Your task to perform on an android device: Open my contact list Image 0: 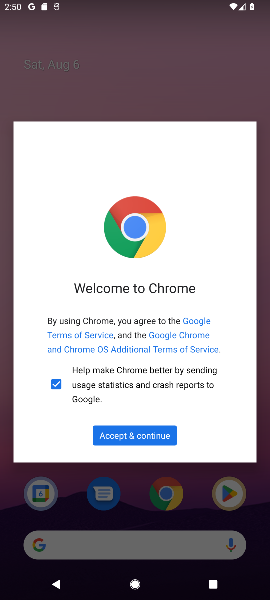
Step 0: drag from (113, 403) to (52, 14)
Your task to perform on an android device: Open my contact list Image 1: 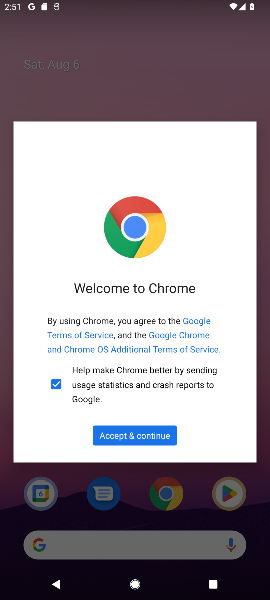
Step 1: press back button
Your task to perform on an android device: Open my contact list Image 2: 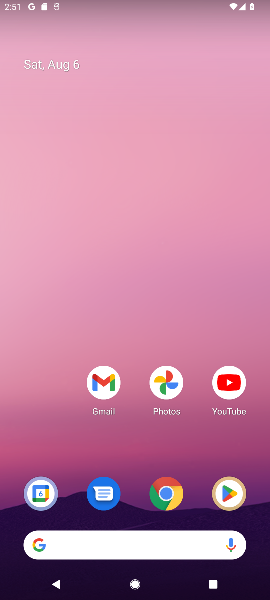
Step 2: press back button
Your task to perform on an android device: Open my contact list Image 3: 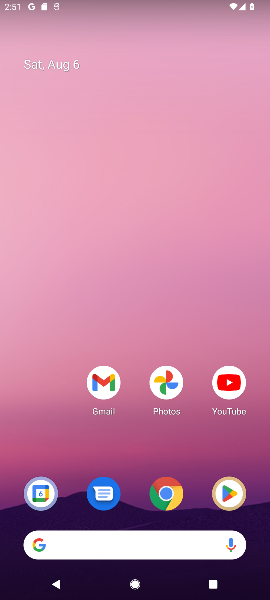
Step 3: press home button
Your task to perform on an android device: Open my contact list Image 4: 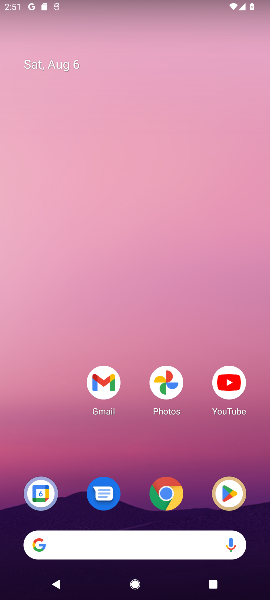
Step 4: drag from (180, 557) to (164, 169)
Your task to perform on an android device: Open my contact list Image 5: 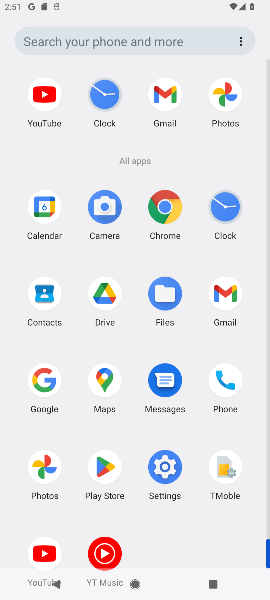
Step 5: click (142, 131)
Your task to perform on an android device: Open my contact list Image 6: 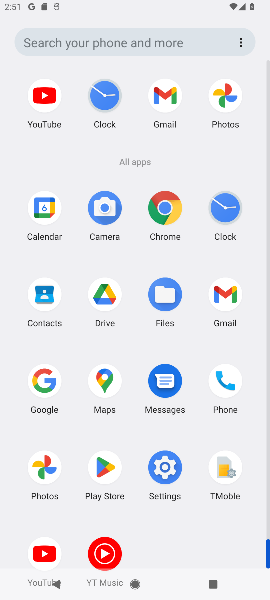
Step 6: drag from (171, 401) to (132, 182)
Your task to perform on an android device: Open my contact list Image 7: 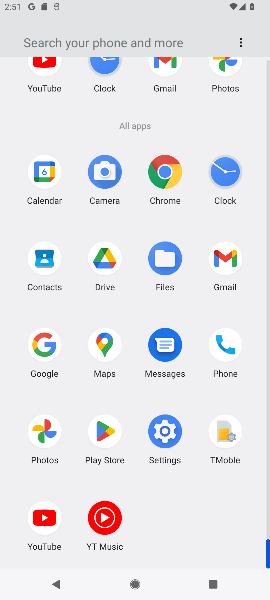
Step 7: click (49, 255)
Your task to perform on an android device: Open my contact list Image 8: 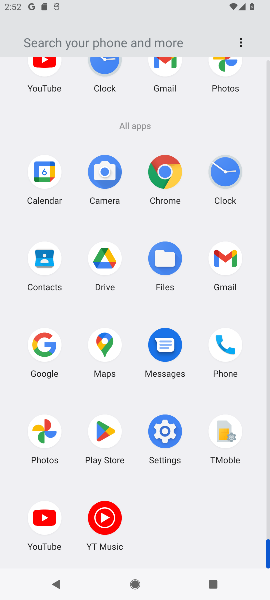
Step 8: click (44, 263)
Your task to perform on an android device: Open my contact list Image 9: 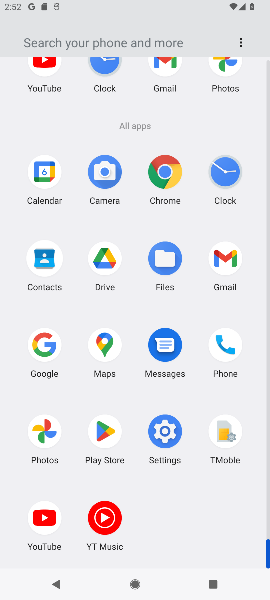
Step 9: click (44, 263)
Your task to perform on an android device: Open my contact list Image 10: 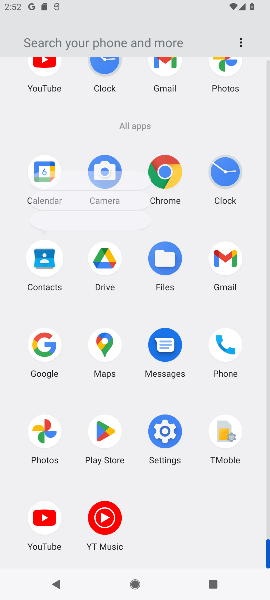
Step 10: click (44, 263)
Your task to perform on an android device: Open my contact list Image 11: 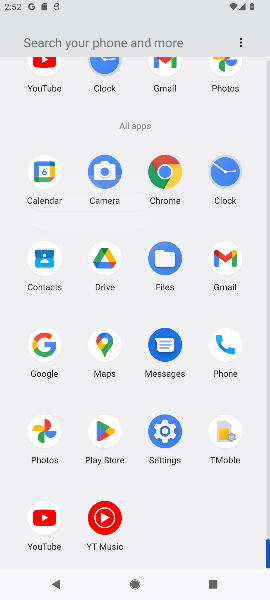
Step 11: click (42, 262)
Your task to perform on an android device: Open my contact list Image 12: 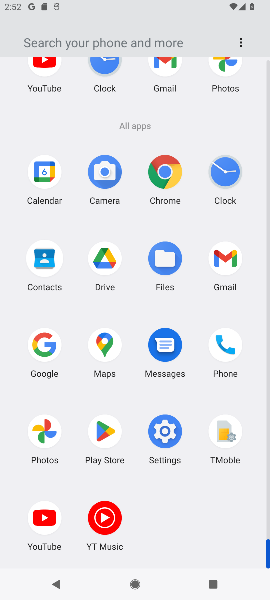
Step 12: click (42, 262)
Your task to perform on an android device: Open my contact list Image 13: 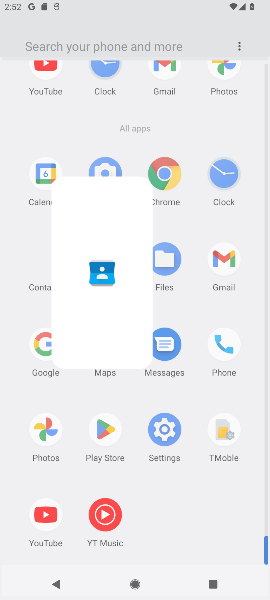
Step 13: click (43, 261)
Your task to perform on an android device: Open my contact list Image 14: 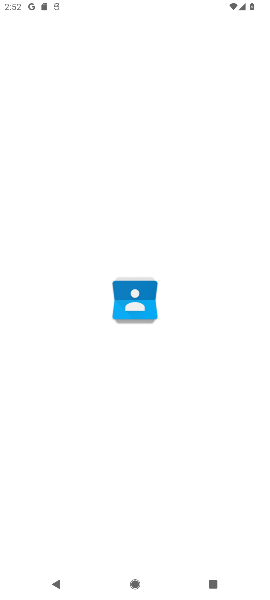
Step 14: click (43, 261)
Your task to perform on an android device: Open my contact list Image 15: 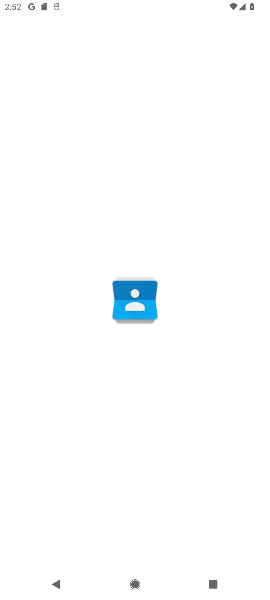
Step 15: click (43, 261)
Your task to perform on an android device: Open my contact list Image 16: 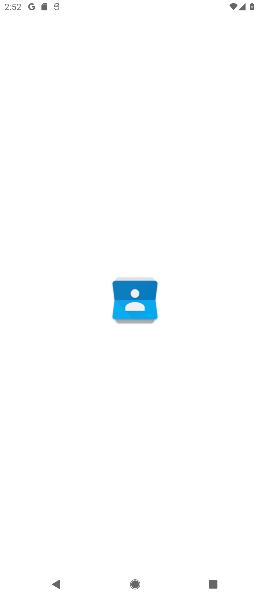
Step 16: click (44, 262)
Your task to perform on an android device: Open my contact list Image 17: 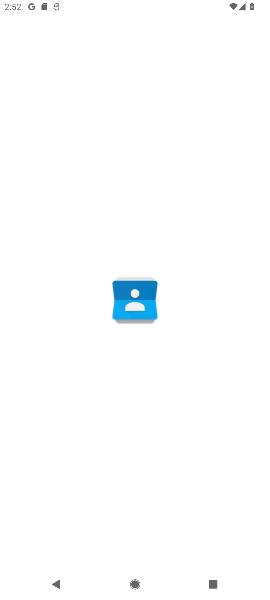
Step 17: click (44, 262)
Your task to perform on an android device: Open my contact list Image 18: 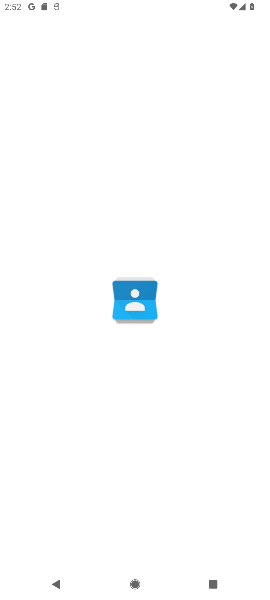
Step 18: click (44, 262)
Your task to perform on an android device: Open my contact list Image 19: 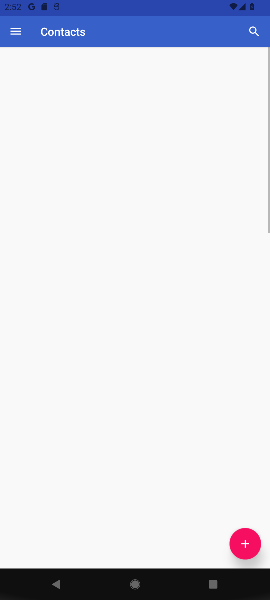
Step 19: click (44, 262)
Your task to perform on an android device: Open my contact list Image 20: 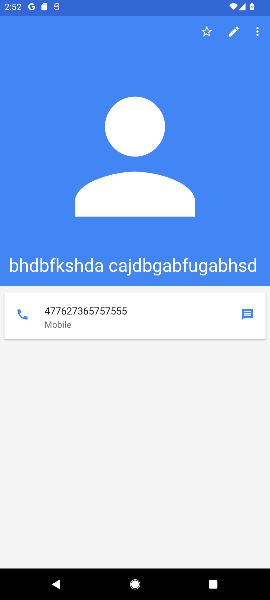
Step 20: task complete